Your task to perform on an android device: What's the weather? Image 0: 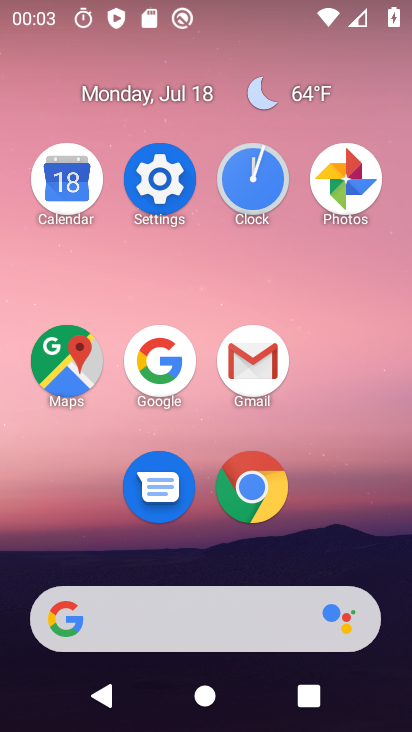
Step 0: click (43, 168)
Your task to perform on an android device: What's the weather? Image 1: 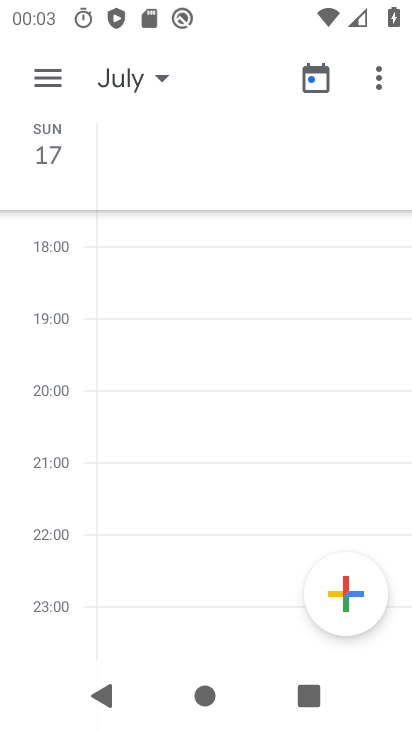
Step 1: click (58, 154)
Your task to perform on an android device: What's the weather? Image 2: 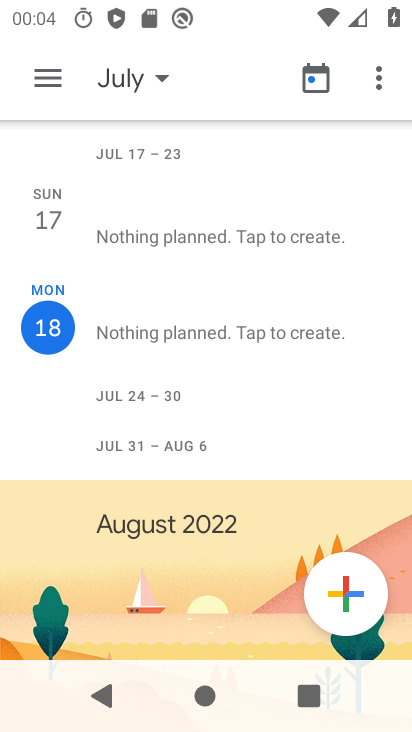
Step 2: task complete